Your task to perform on an android device: toggle show notifications on the lock screen Image 0: 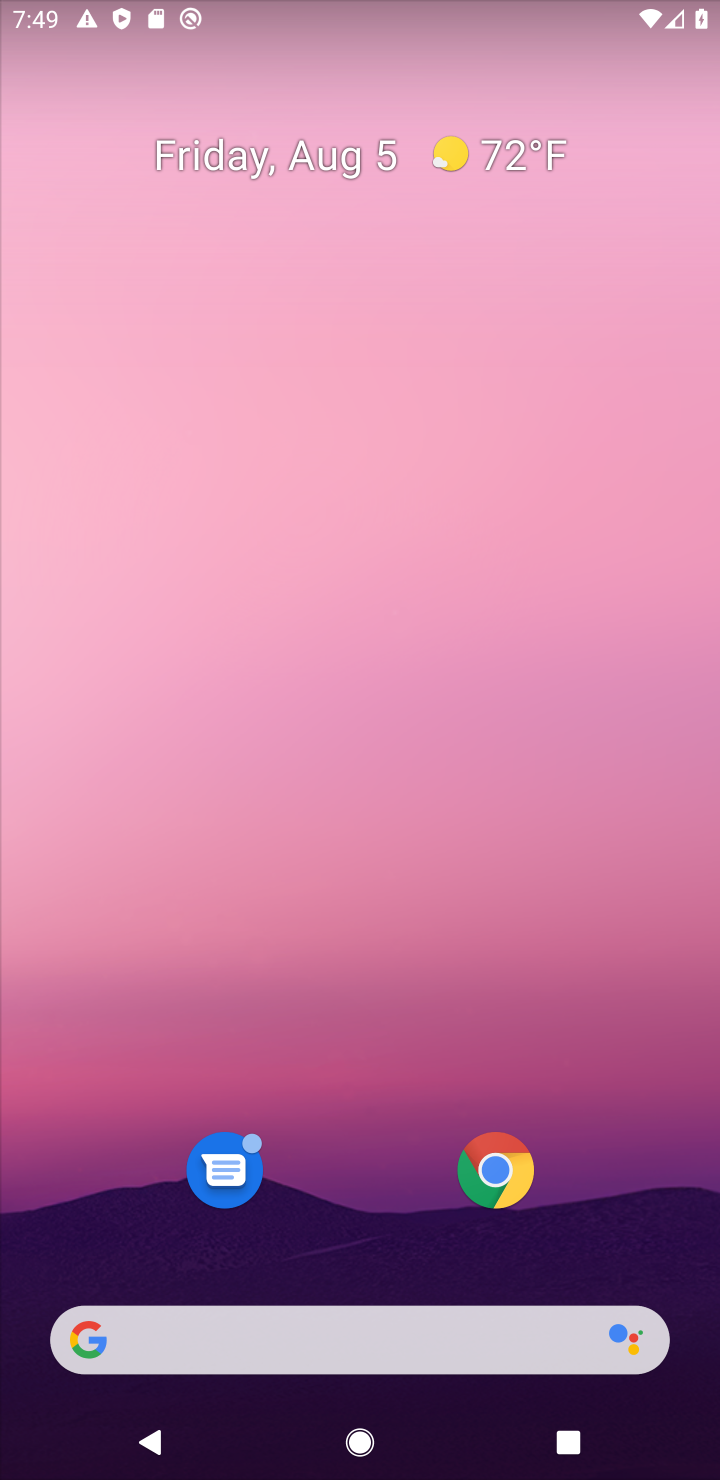
Step 0: drag from (679, 1264) to (666, 235)
Your task to perform on an android device: toggle show notifications on the lock screen Image 1: 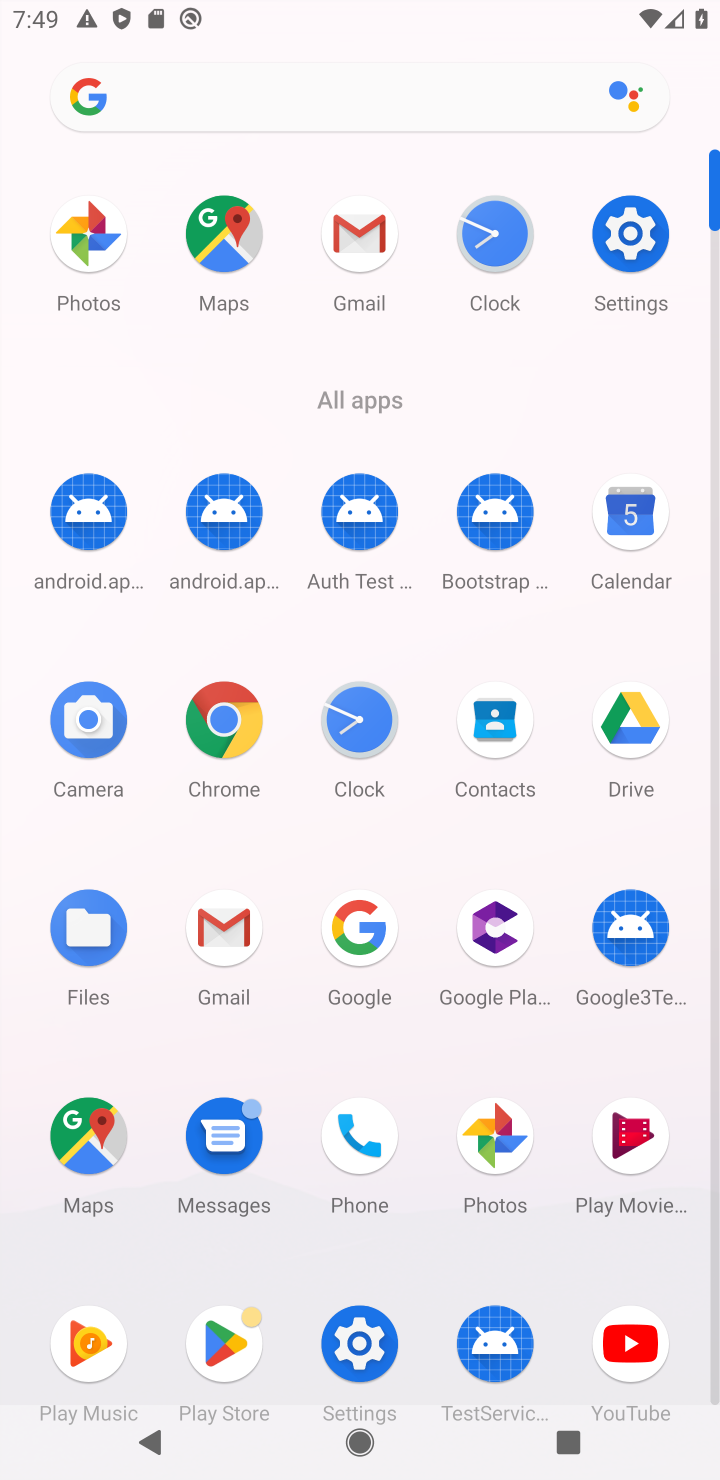
Step 1: click (357, 1350)
Your task to perform on an android device: toggle show notifications on the lock screen Image 2: 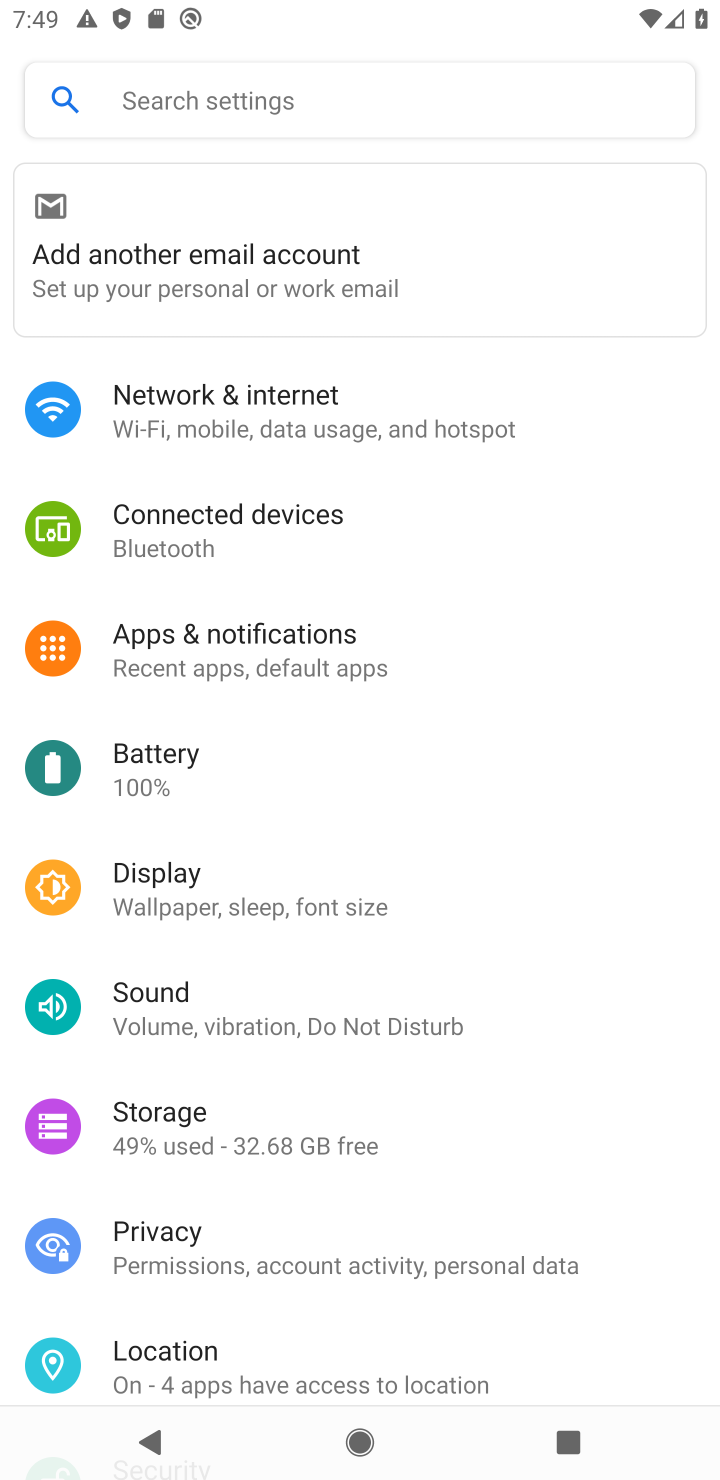
Step 2: click (219, 635)
Your task to perform on an android device: toggle show notifications on the lock screen Image 3: 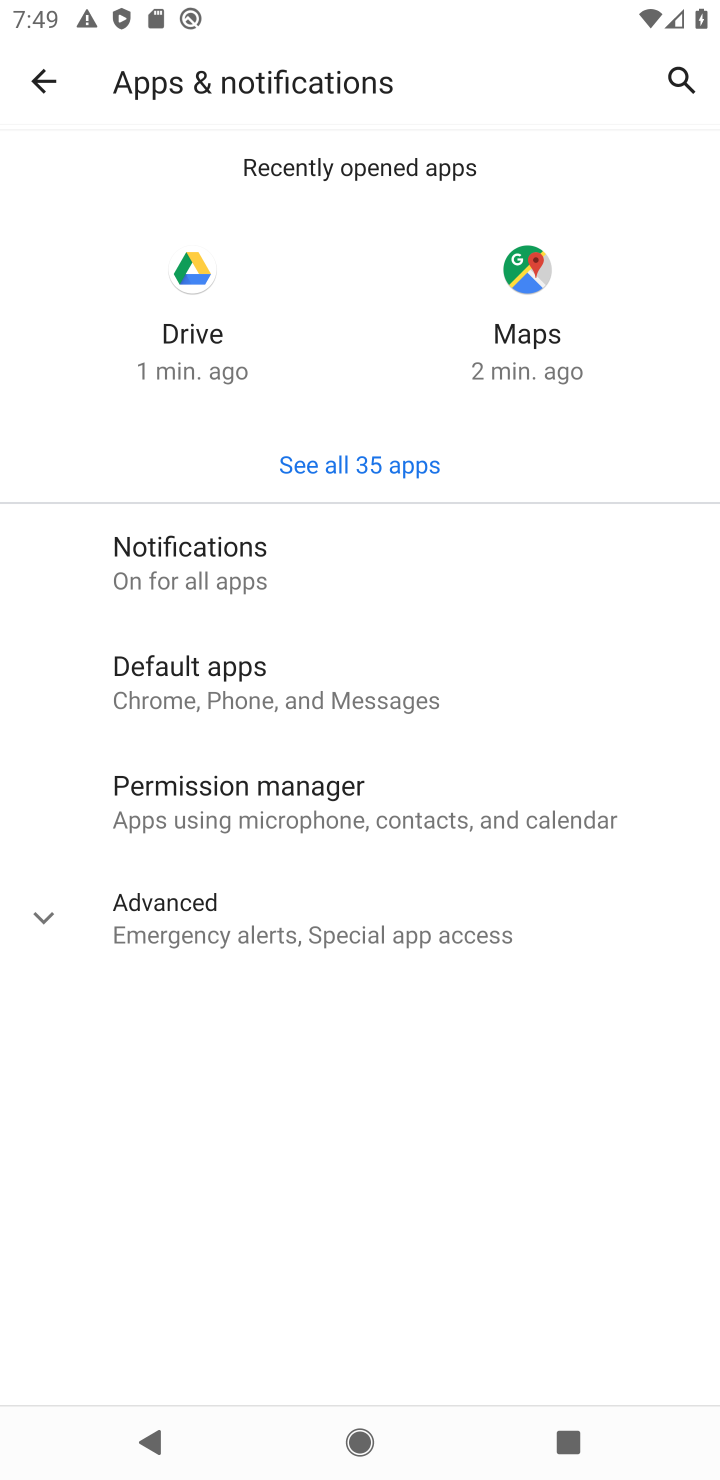
Step 3: click (192, 544)
Your task to perform on an android device: toggle show notifications on the lock screen Image 4: 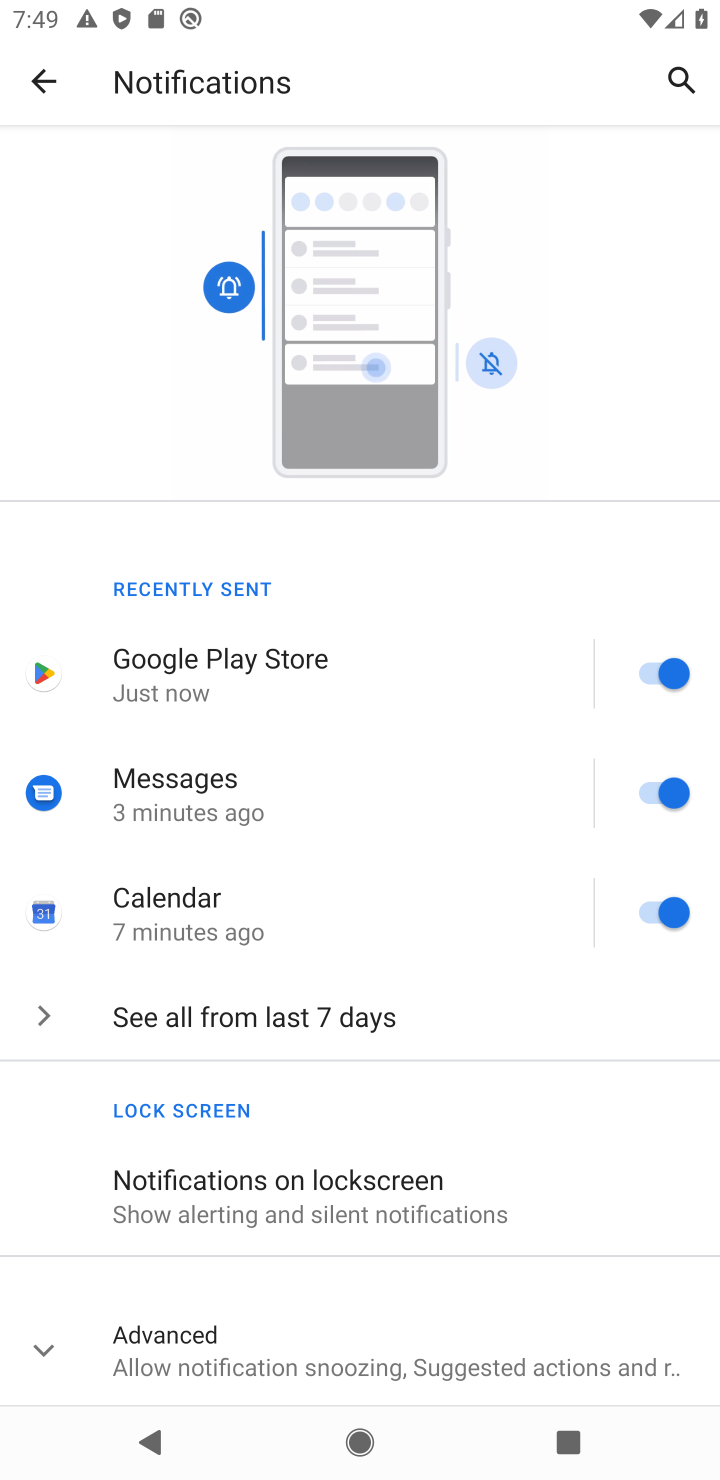
Step 4: click (286, 1179)
Your task to perform on an android device: toggle show notifications on the lock screen Image 5: 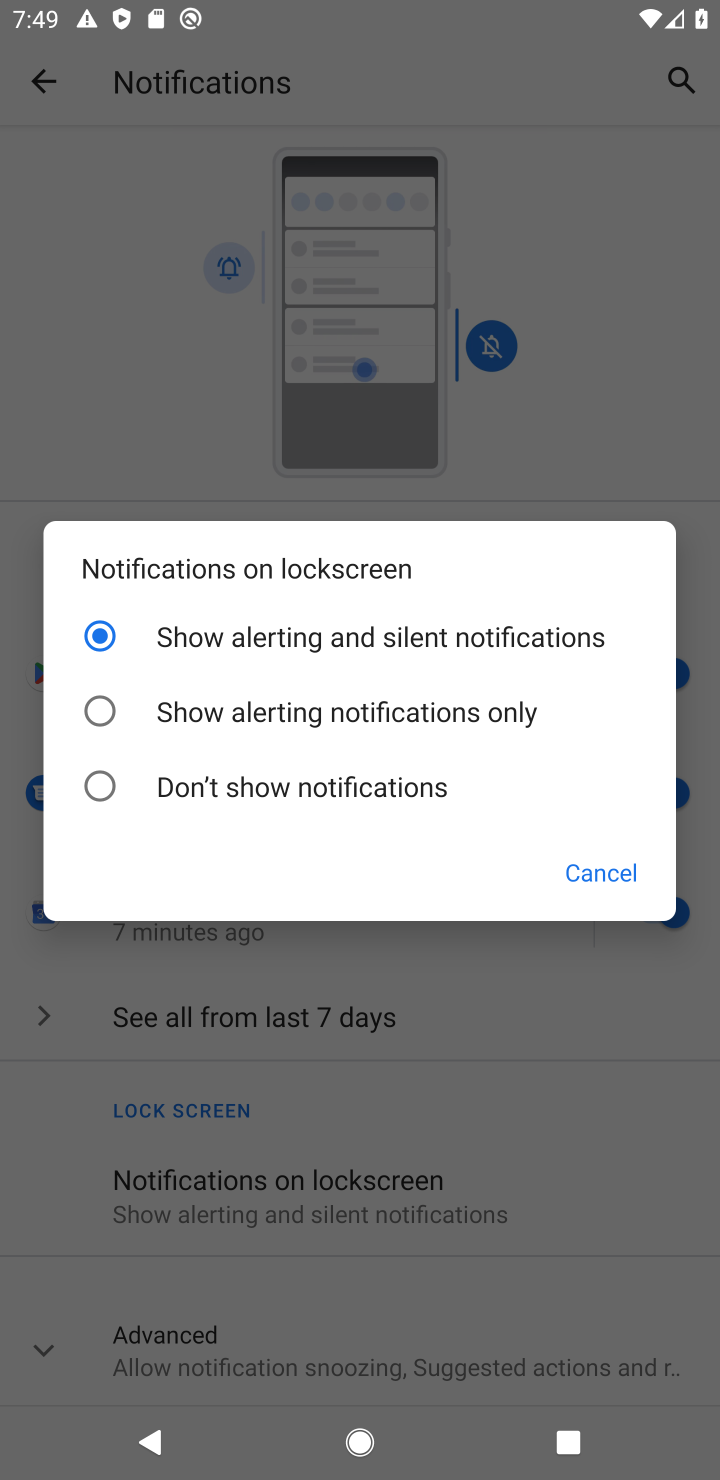
Step 5: click (90, 707)
Your task to perform on an android device: toggle show notifications on the lock screen Image 6: 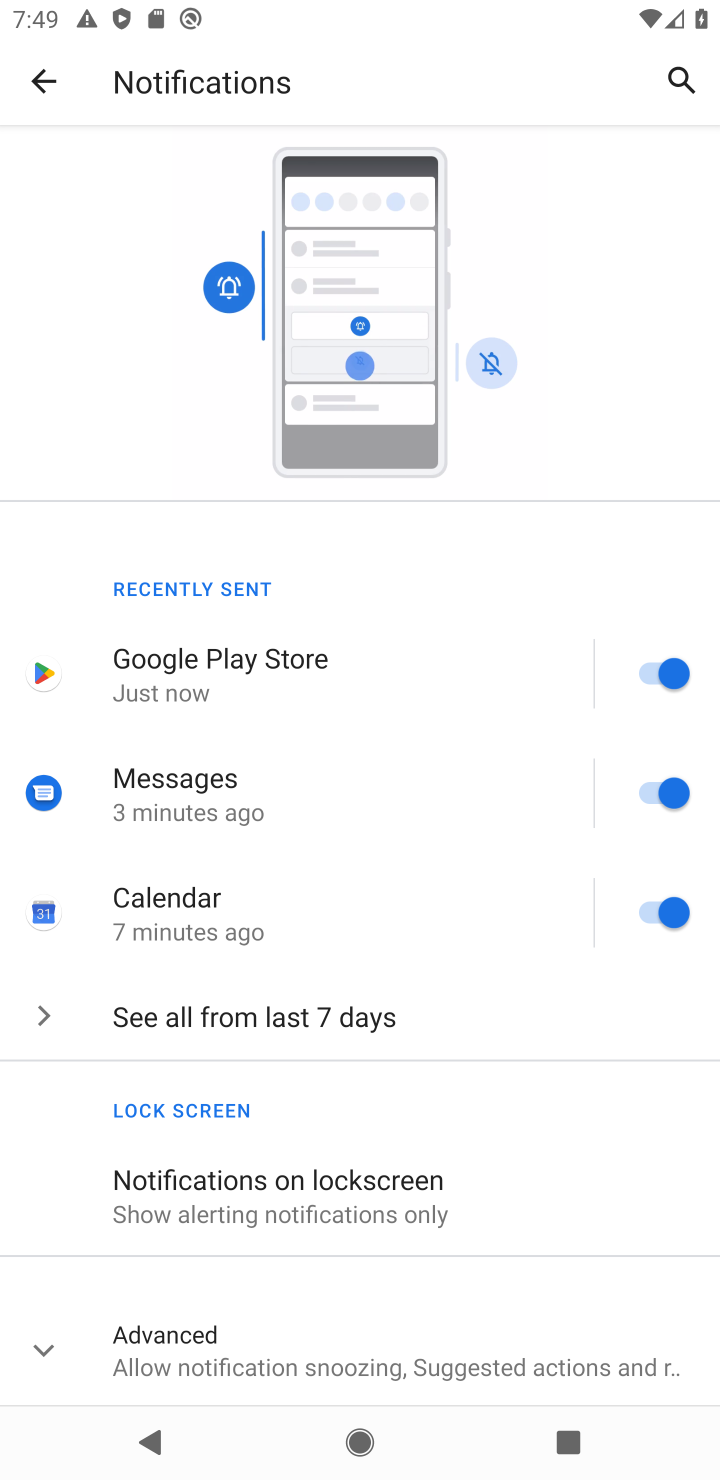
Step 6: task complete